Your task to perform on an android device: Open location settings Image 0: 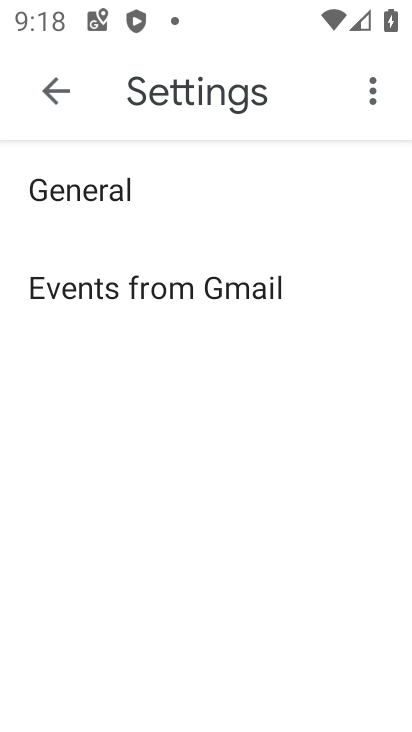
Step 0: press home button
Your task to perform on an android device: Open location settings Image 1: 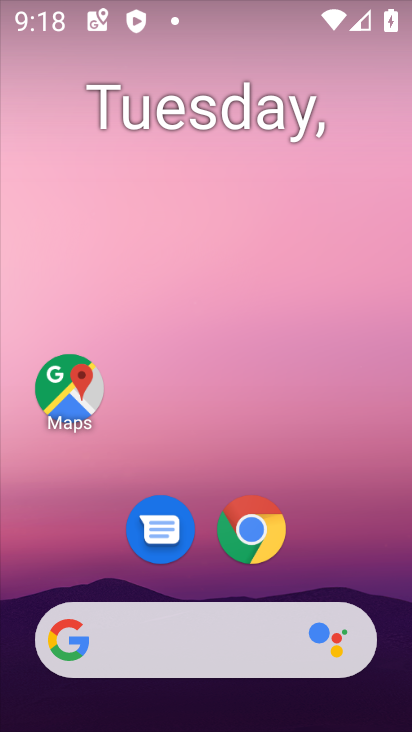
Step 1: drag from (225, 577) to (369, 2)
Your task to perform on an android device: Open location settings Image 2: 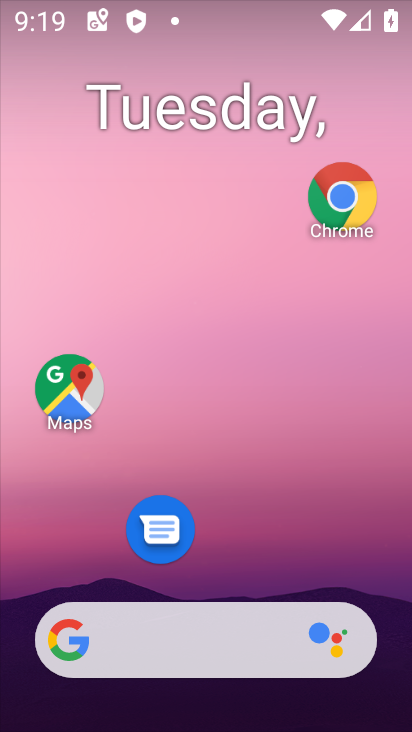
Step 2: click (213, 111)
Your task to perform on an android device: Open location settings Image 3: 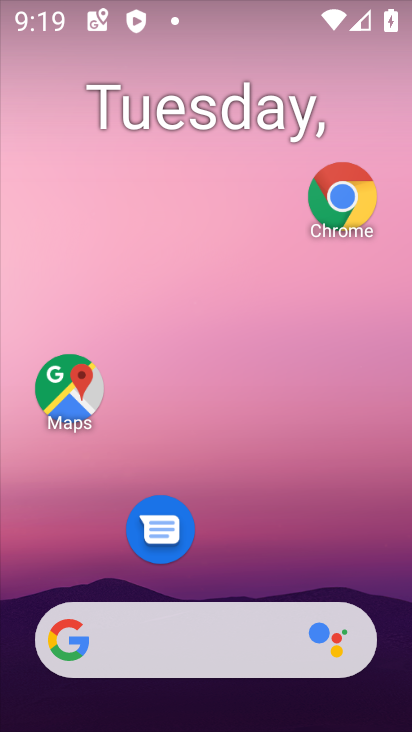
Step 3: drag from (222, 282) to (379, 37)
Your task to perform on an android device: Open location settings Image 4: 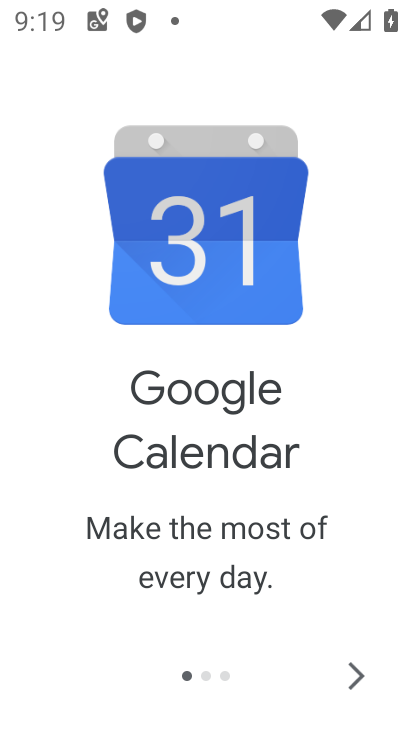
Step 4: press home button
Your task to perform on an android device: Open location settings Image 5: 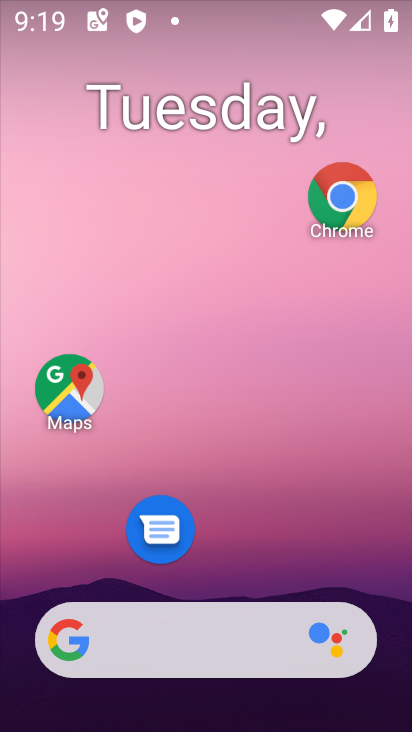
Step 5: drag from (301, 96) to (312, 31)
Your task to perform on an android device: Open location settings Image 6: 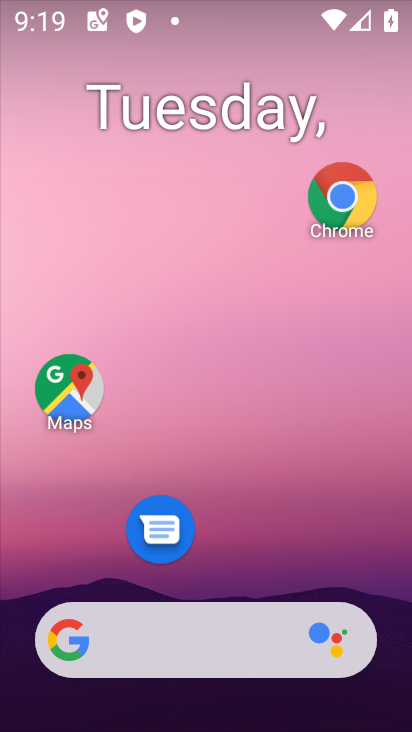
Step 6: drag from (203, 471) to (230, 161)
Your task to perform on an android device: Open location settings Image 7: 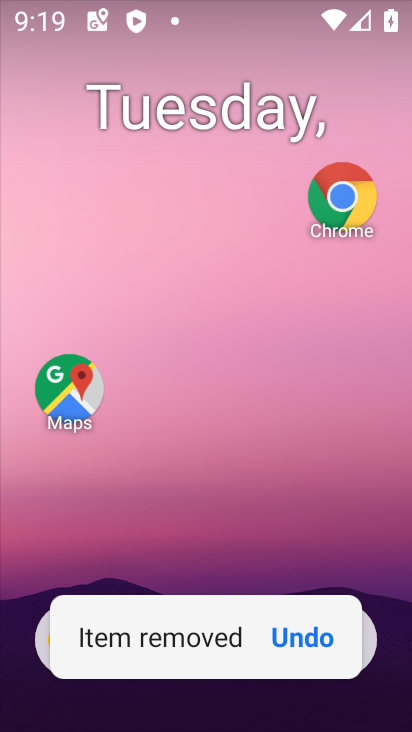
Step 7: click (305, 650)
Your task to perform on an android device: Open location settings Image 8: 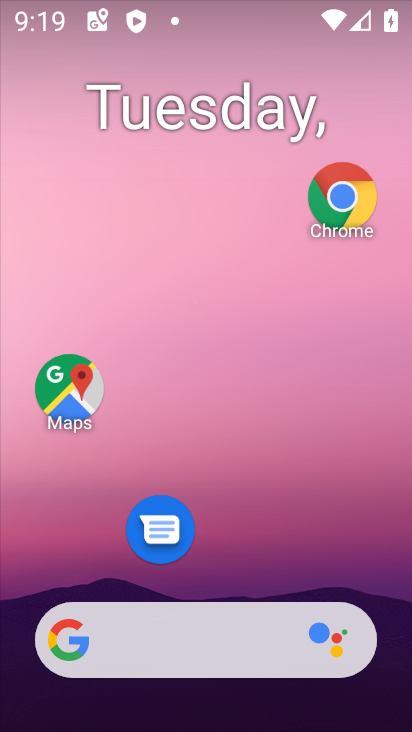
Step 8: drag from (269, 502) to (254, 138)
Your task to perform on an android device: Open location settings Image 9: 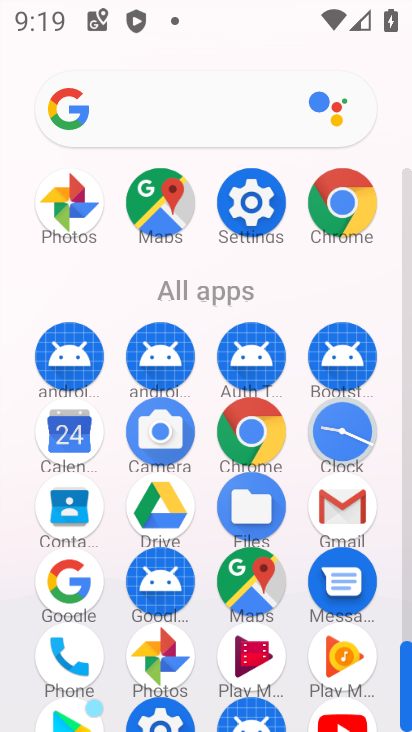
Step 9: click (252, 201)
Your task to perform on an android device: Open location settings Image 10: 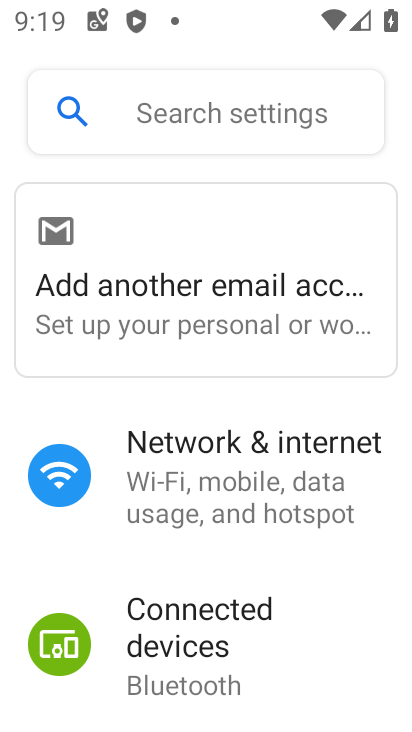
Step 10: drag from (241, 612) to (226, 315)
Your task to perform on an android device: Open location settings Image 11: 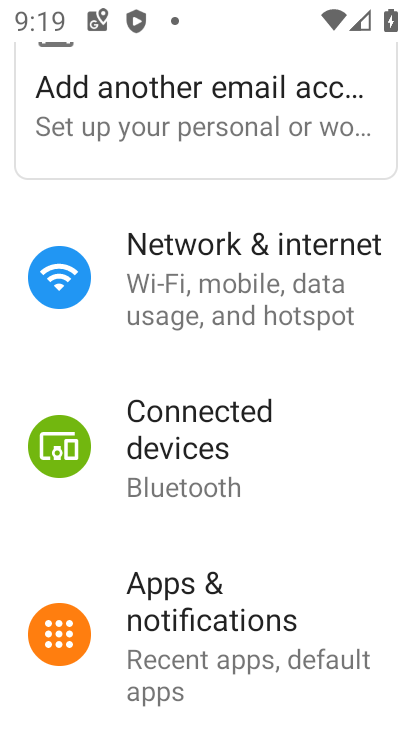
Step 11: drag from (234, 575) to (220, 342)
Your task to perform on an android device: Open location settings Image 12: 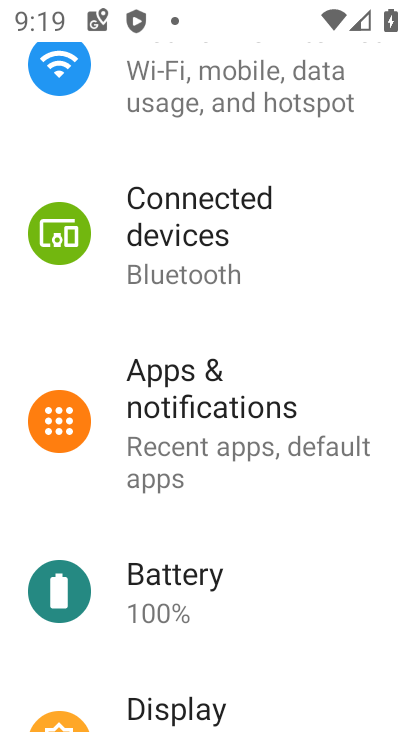
Step 12: click (182, 626)
Your task to perform on an android device: Open location settings Image 13: 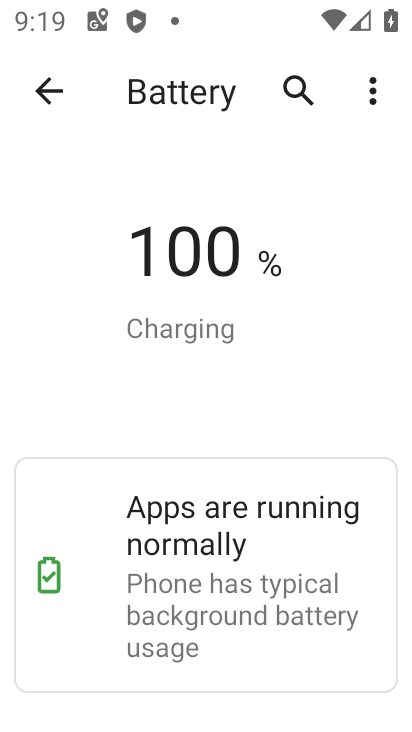
Step 13: click (237, 320)
Your task to perform on an android device: Open location settings Image 14: 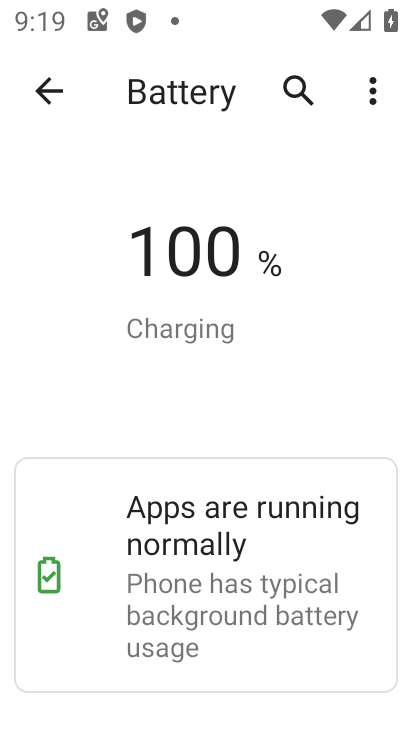
Step 14: click (40, 116)
Your task to perform on an android device: Open location settings Image 15: 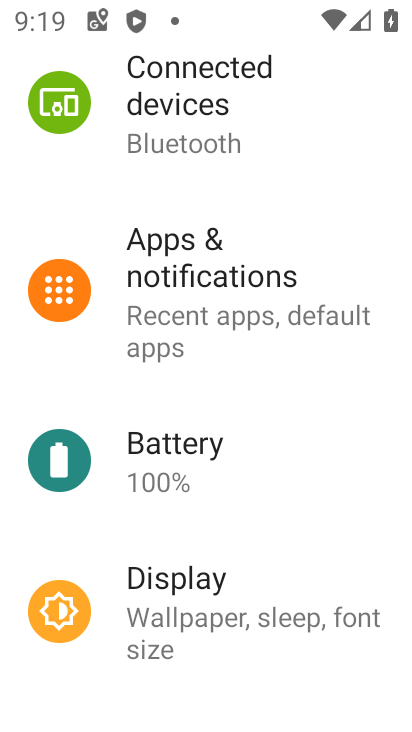
Step 15: click (43, 99)
Your task to perform on an android device: Open location settings Image 16: 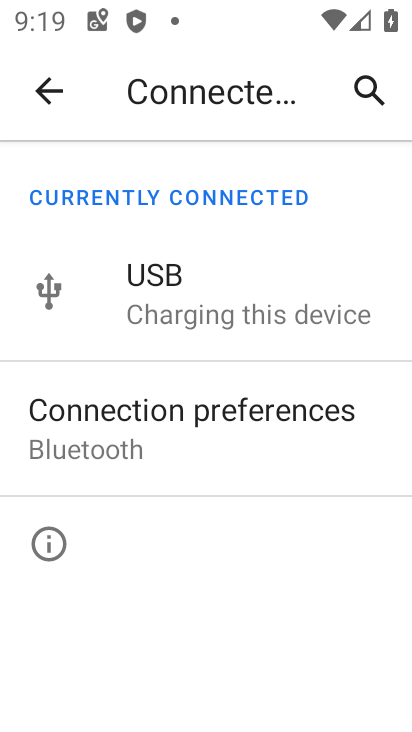
Step 16: click (51, 92)
Your task to perform on an android device: Open location settings Image 17: 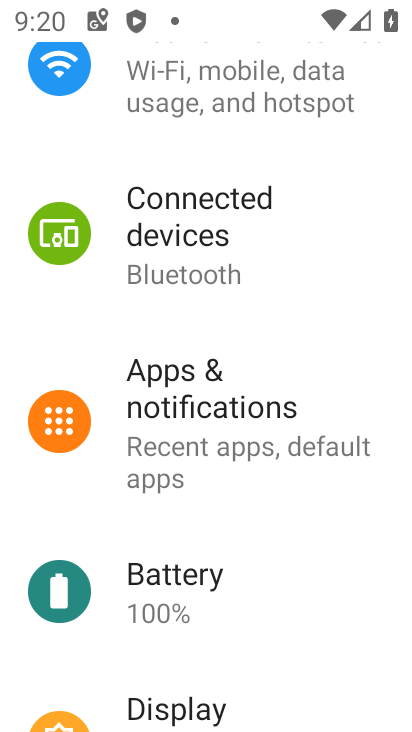
Step 17: drag from (196, 586) to (201, 306)
Your task to perform on an android device: Open location settings Image 18: 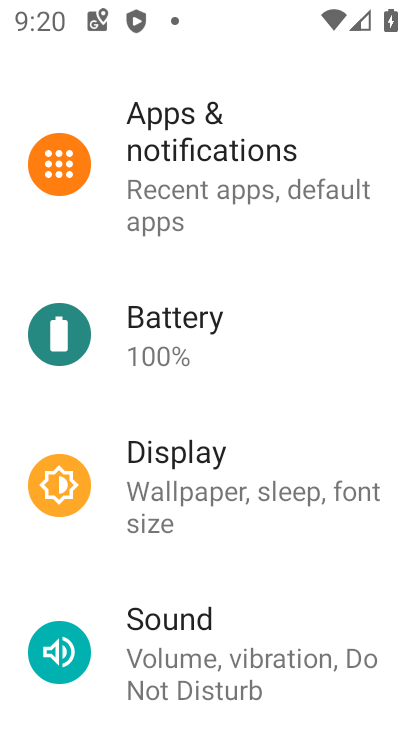
Step 18: click (203, 368)
Your task to perform on an android device: Open location settings Image 19: 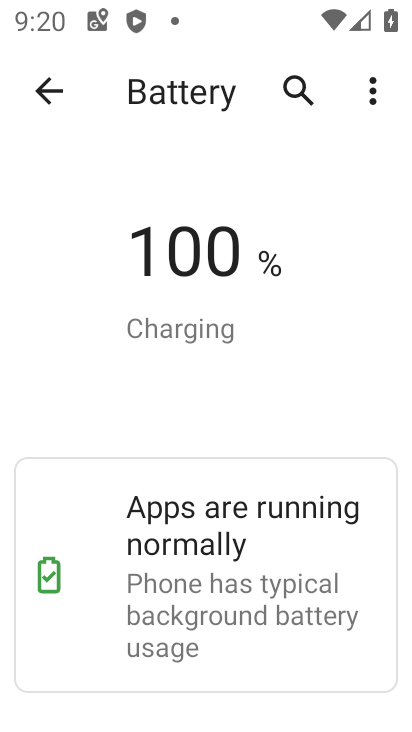
Step 19: click (46, 89)
Your task to perform on an android device: Open location settings Image 20: 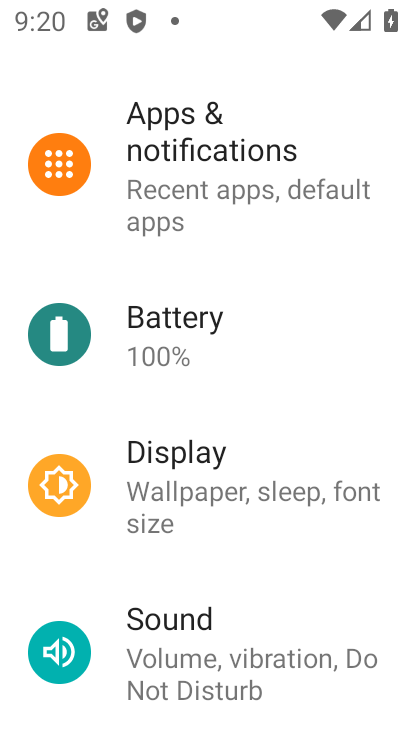
Step 20: drag from (242, 488) to (236, 186)
Your task to perform on an android device: Open location settings Image 21: 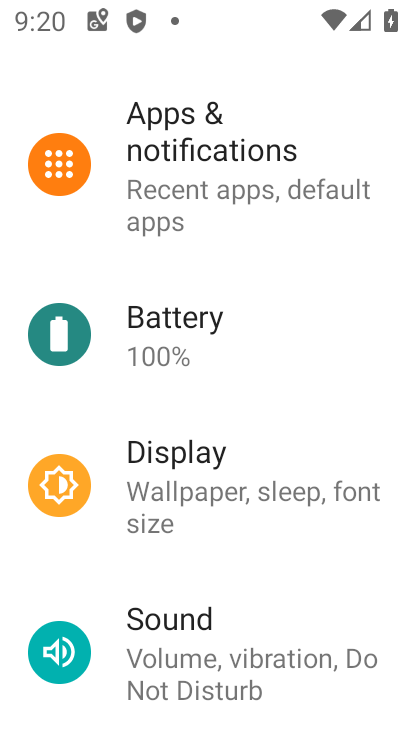
Step 21: drag from (213, 615) to (217, 290)
Your task to perform on an android device: Open location settings Image 22: 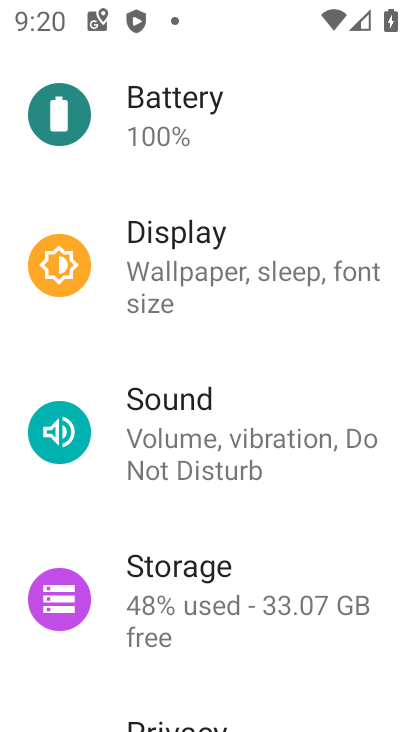
Step 22: drag from (258, 503) to (235, 222)
Your task to perform on an android device: Open location settings Image 23: 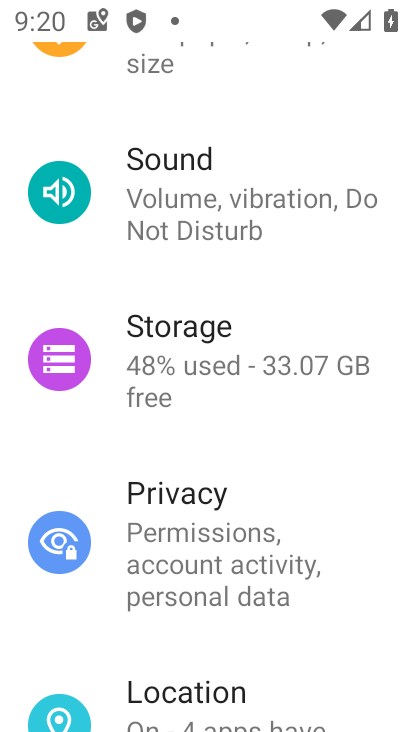
Step 23: drag from (241, 604) to (248, 205)
Your task to perform on an android device: Open location settings Image 24: 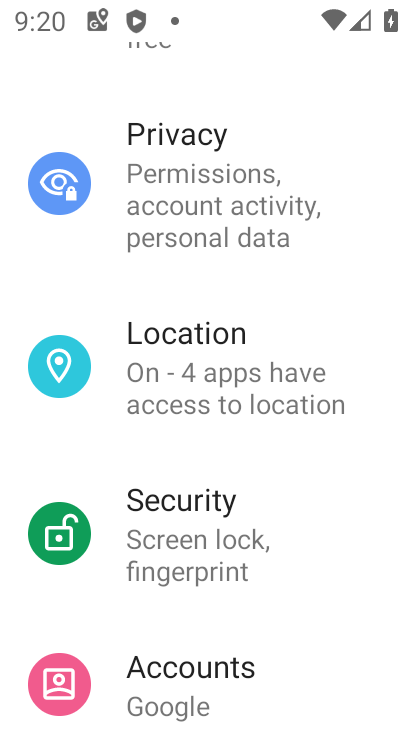
Step 24: click (180, 391)
Your task to perform on an android device: Open location settings Image 25: 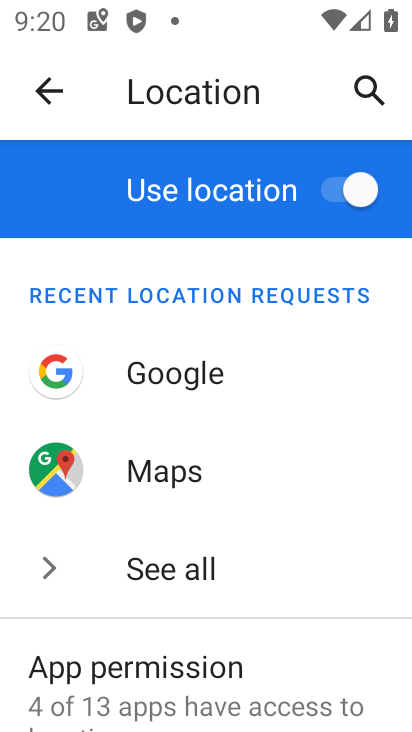
Step 25: task complete